Your task to perform on an android device: open chrome privacy settings Image 0: 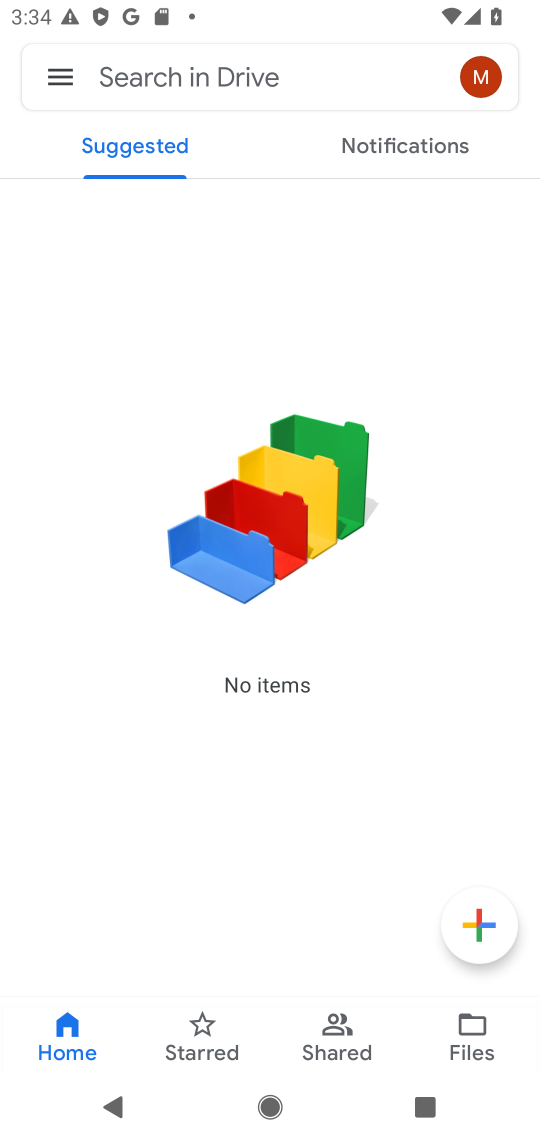
Step 0: press home button
Your task to perform on an android device: open chrome privacy settings Image 1: 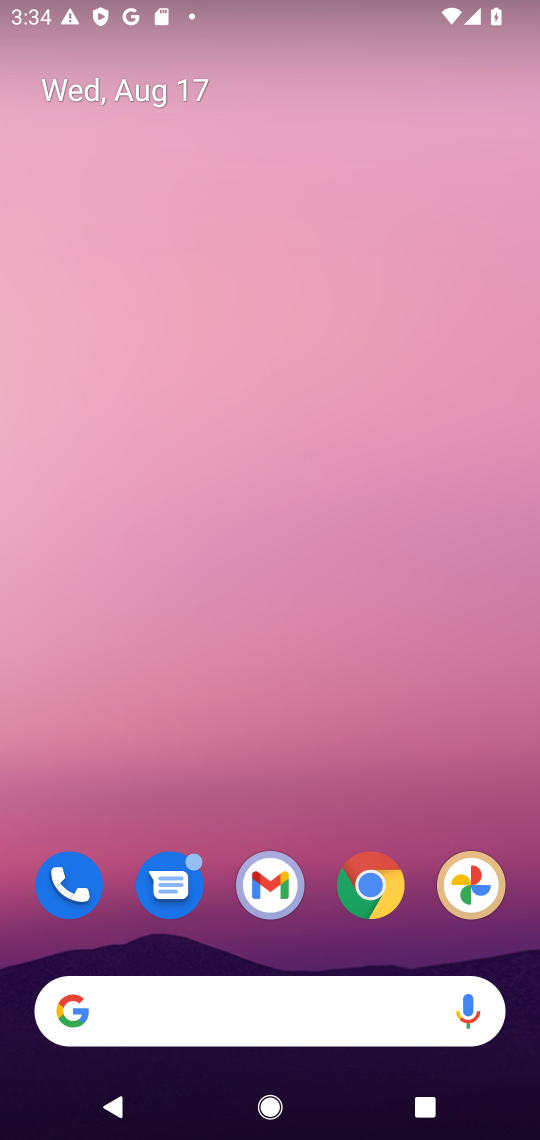
Step 1: click (372, 886)
Your task to perform on an android device: open chrome privacy settings Image 2: 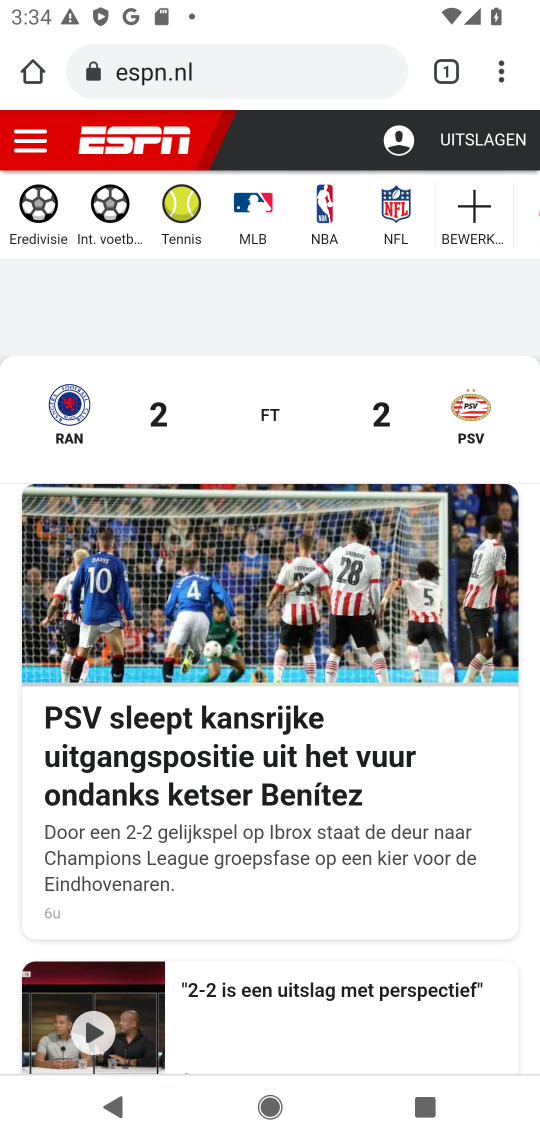
Step 2: click (517, 79)
Your task to perform on an android device: open chrome privacy settings Image 3: 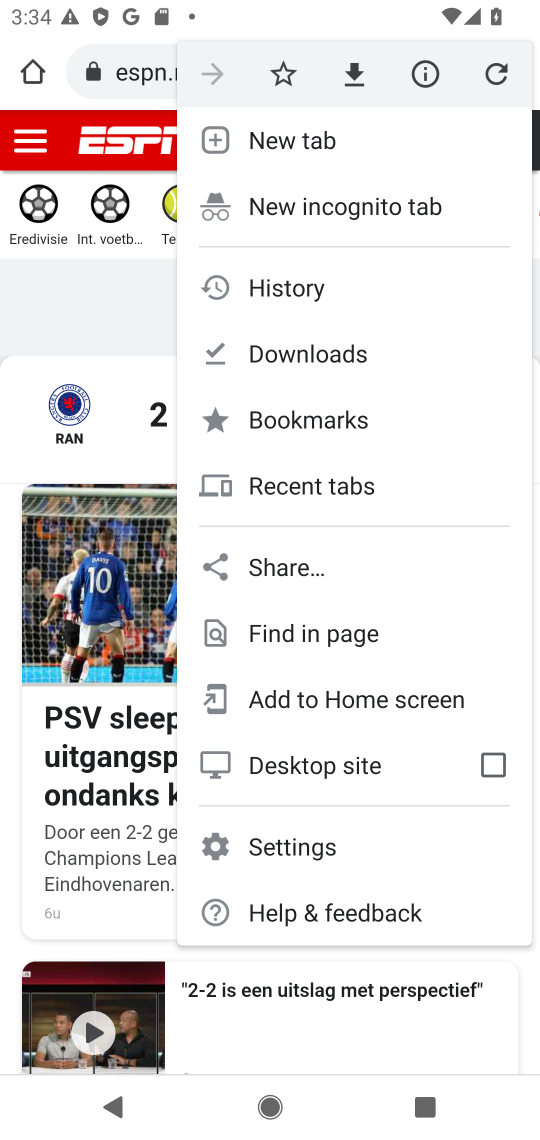
Step 3: click (321, 849)
Your task to perform on an android device: open chrome privacy settings Image 4: 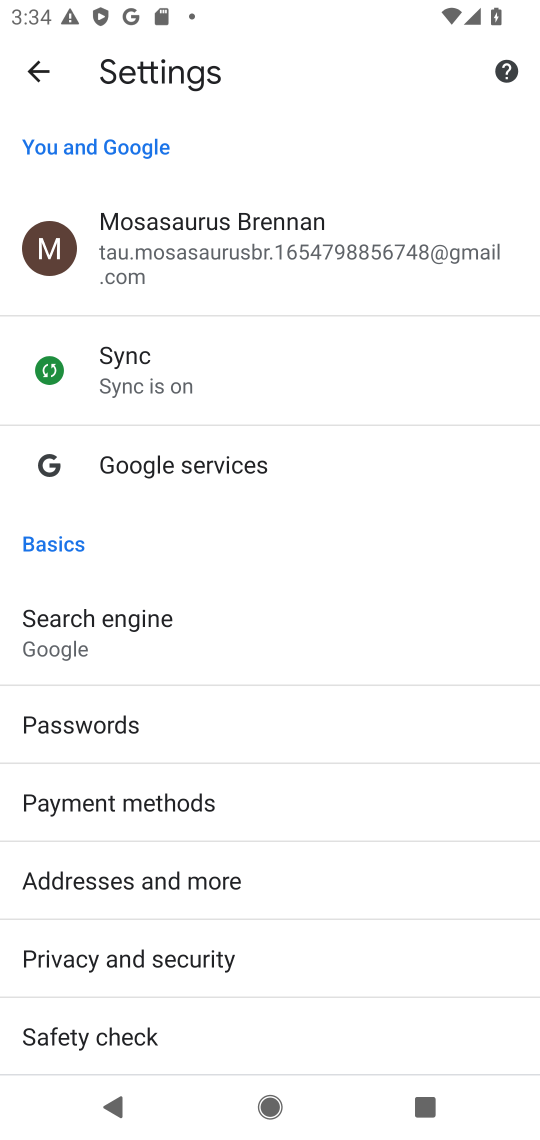
Step 4: click (90, 950)
Your task to perform on an android device: open chrome privacy settings Image 5: 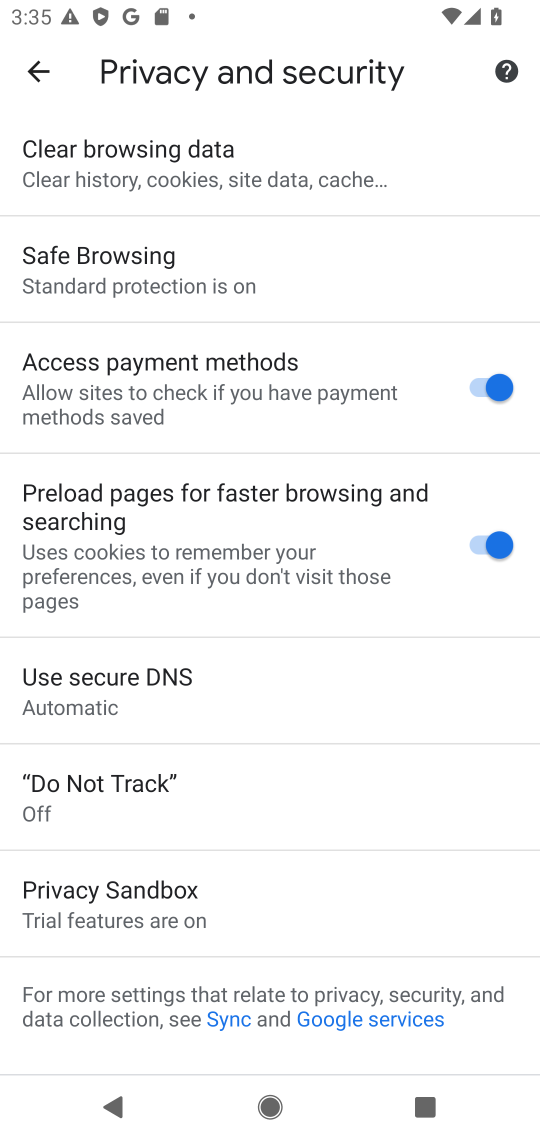
Step 5: task complete